Your task to perform on an android device: Search for vegetarian restaurants on Maps Image 0: 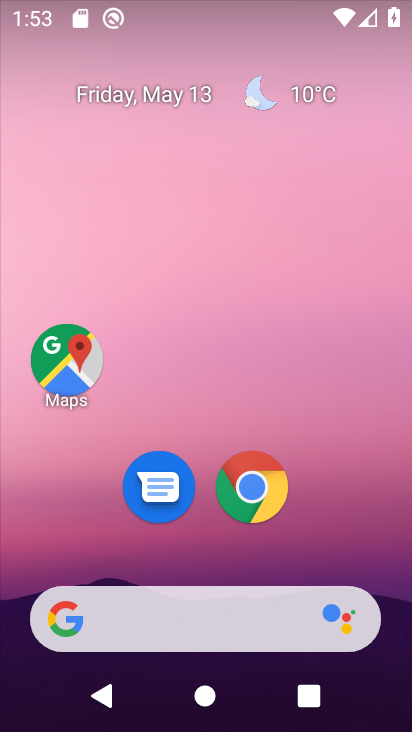
Step 0: click (62, 353)
Your task to perform on an android device: Search for vegetarian restaurants on Maps Image 1: 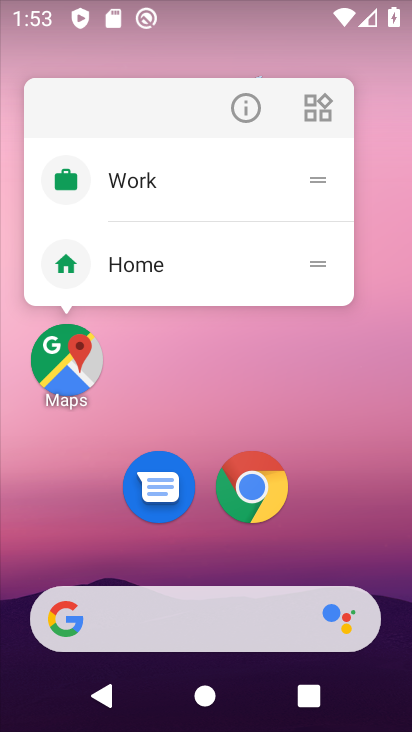
Step 1: click (60, 361)
Your task to perform on an android device: Search for vegetarian restaurants on Maps Image 2: 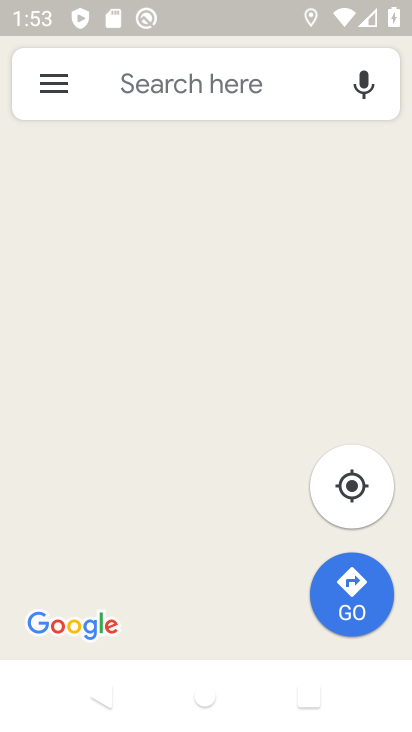
Step 2: click (129, 85)
Your task to perform on an android device: Search for vegetarian restaurants on Maps Image 3: 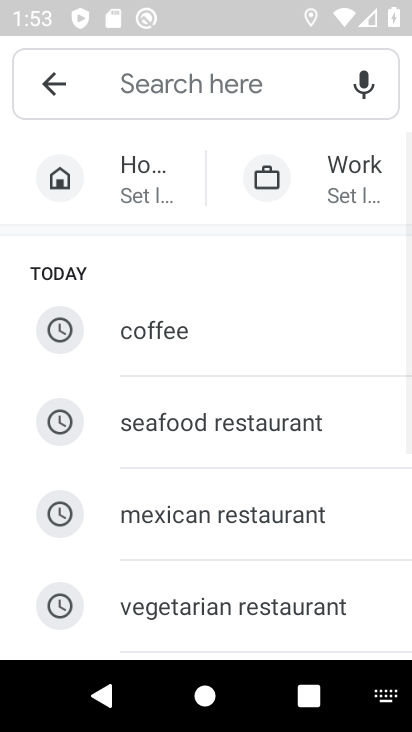
Step 3: type "vegetarian restaurants"
Your task to perform on an android device: Search for vegetarian restaurants on Maps Image 4: 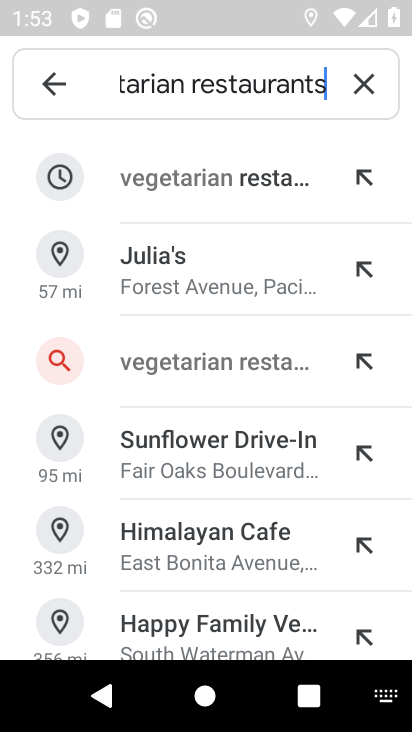
Step 4: click (217, 184)
Your task to perform on an android device: Search for vegetarian restaurants on Maps Image 5: 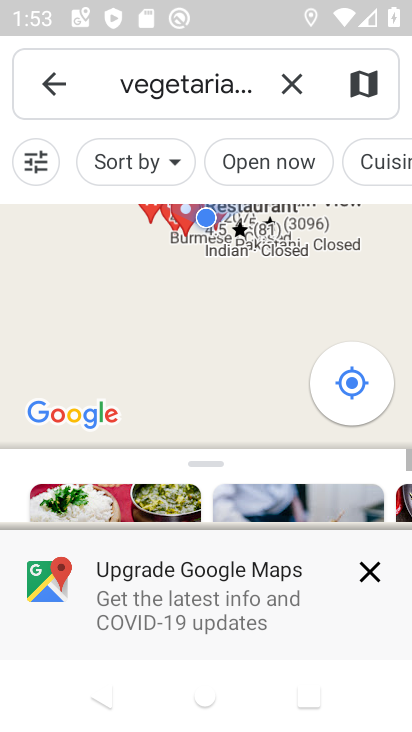
Step 5: task complete